Your task to perform on an android device: Look up the best rated bike seats on Target Image 0: 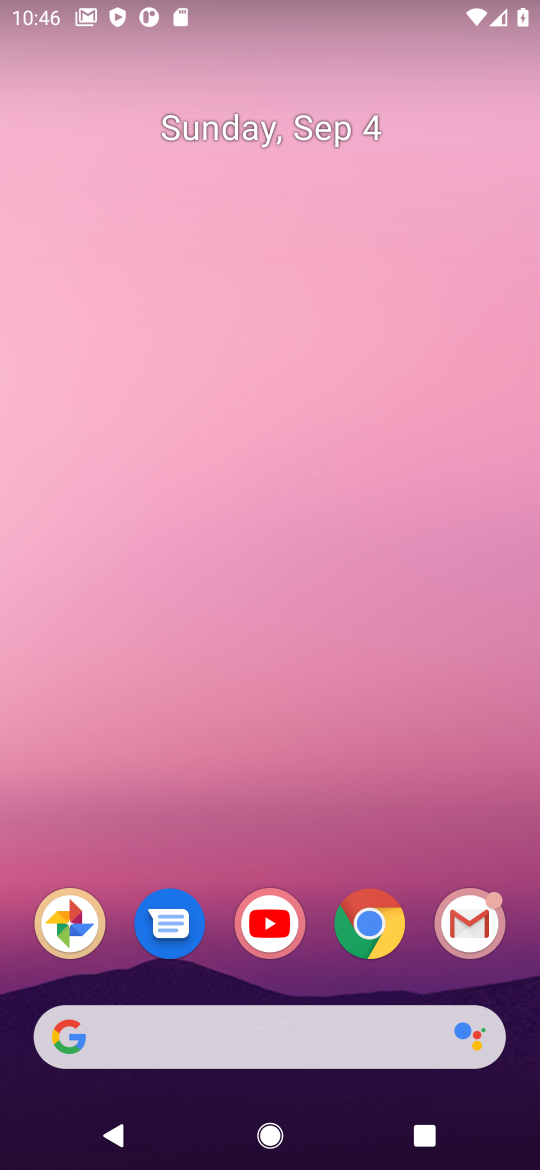
Step 0: click (352, 947)
Your task to perform on an android device: Look up the best rated bike seats on Target Image 1: 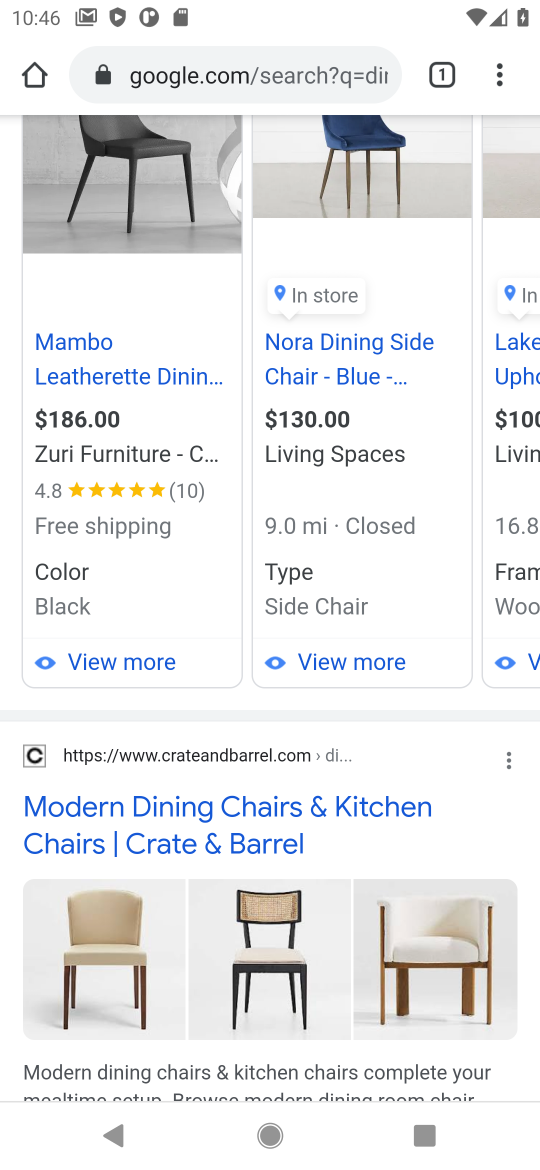
Step 1: click (285, 72)
Your task to perform on an android device: Look up the best rated bike seats on Target Image 2: 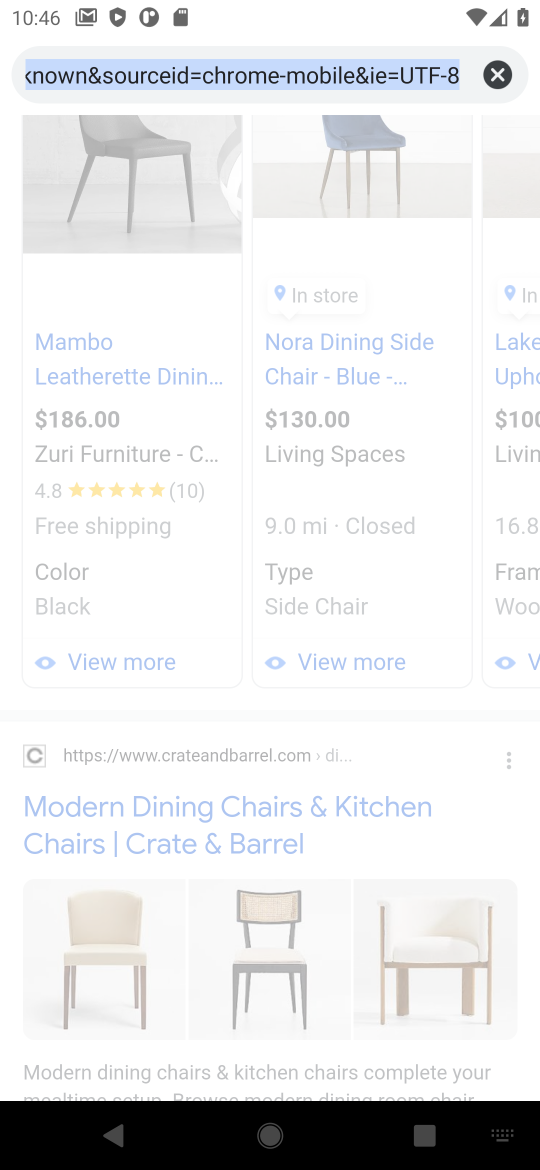
Step 2: click (497, 71)
Your task to perform on an android device: Look up the best rated bike seats on Target Image 3: 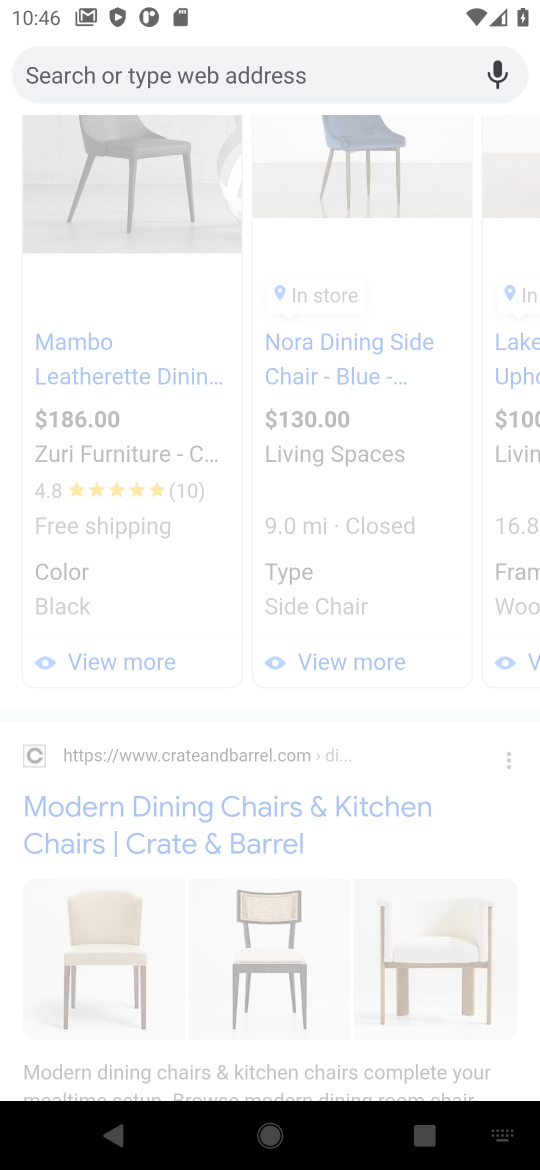
Step 3: type "the best rated bike seats on Target"
Your task to perform on an android device: Look up the best rated bike seats on Target Image 4: 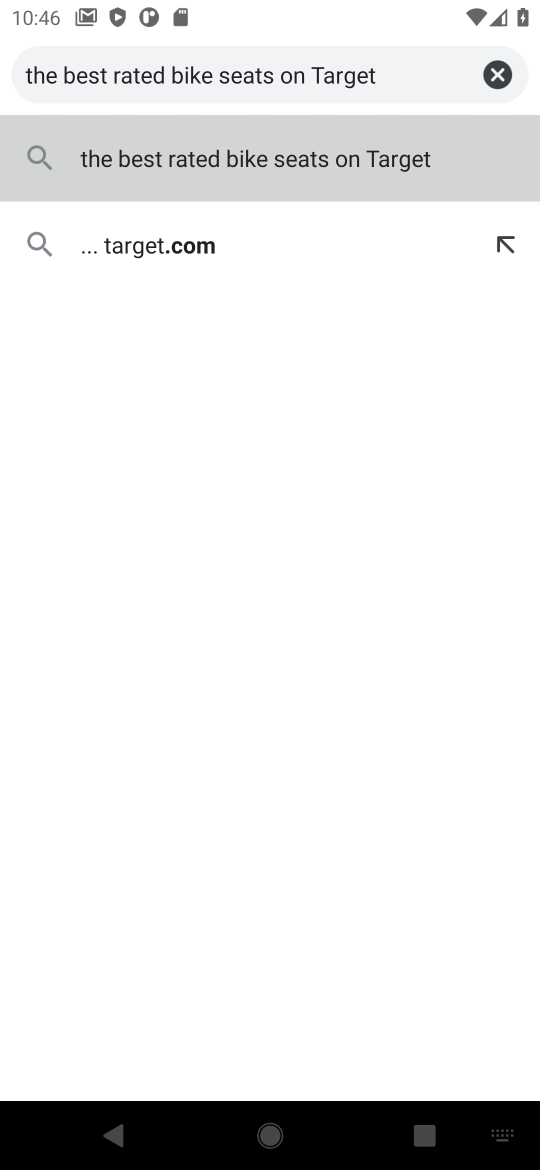
Step 4: click (160, 166)
Your task to perform on an android device: Look up the best rated bike seats on Target Image 5: 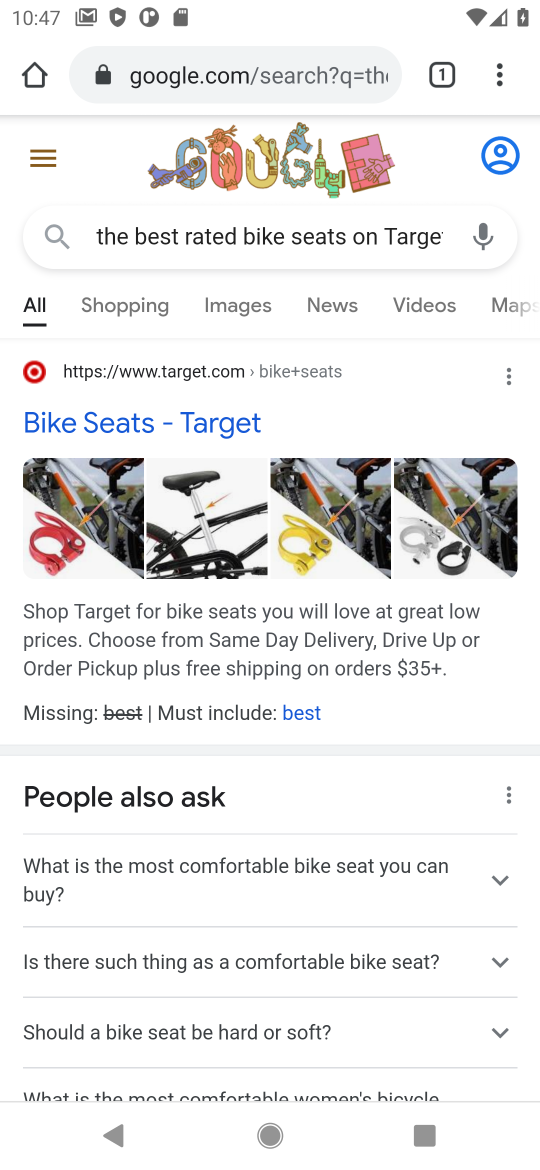
Step 5: task complete